Your task to perform on an android device: open app "Nova Launcher" (install if not already installed) Image 0: 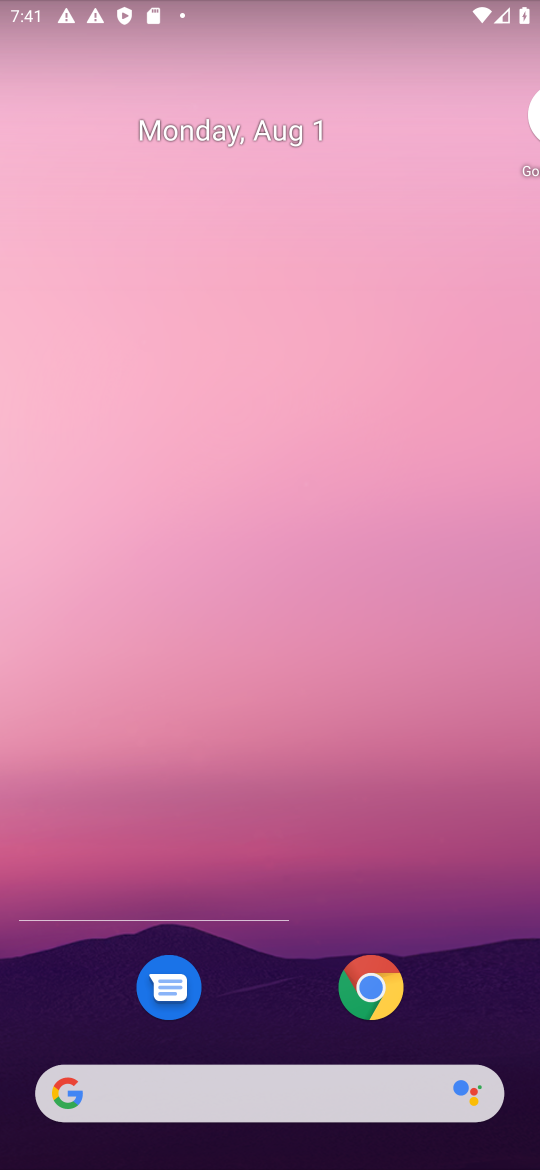
Step 0: press home button
Your task to perform on an android device: open app "Nova Launcher" (install if not already installed) Image 1: 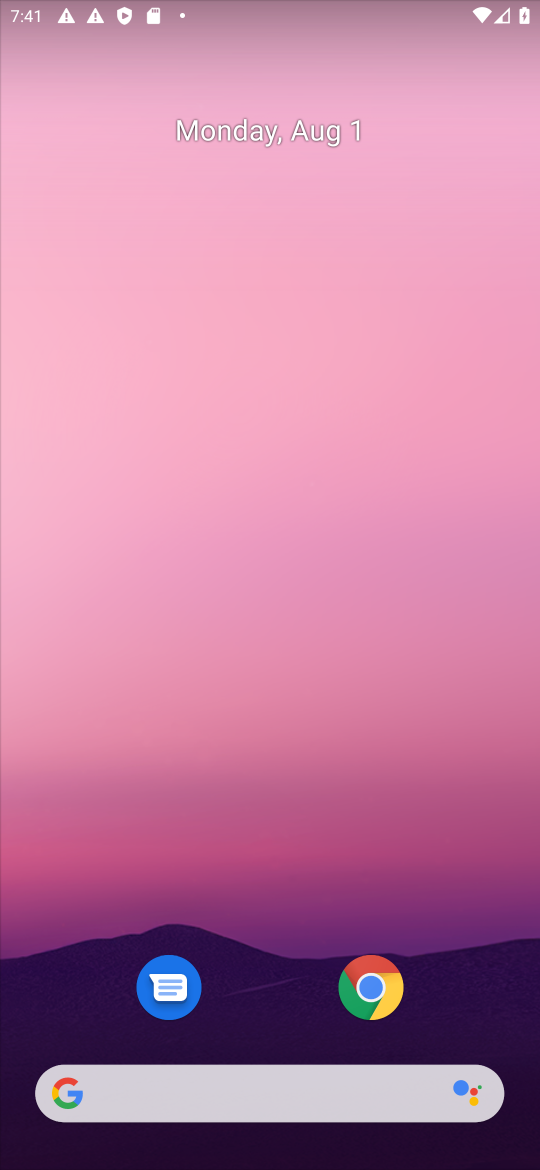
Step 1: drag from (273, 1005) to (225, 390)
Your task to perform on an android device: open app "Nova Launcher" (install if not already installed) Image 2: 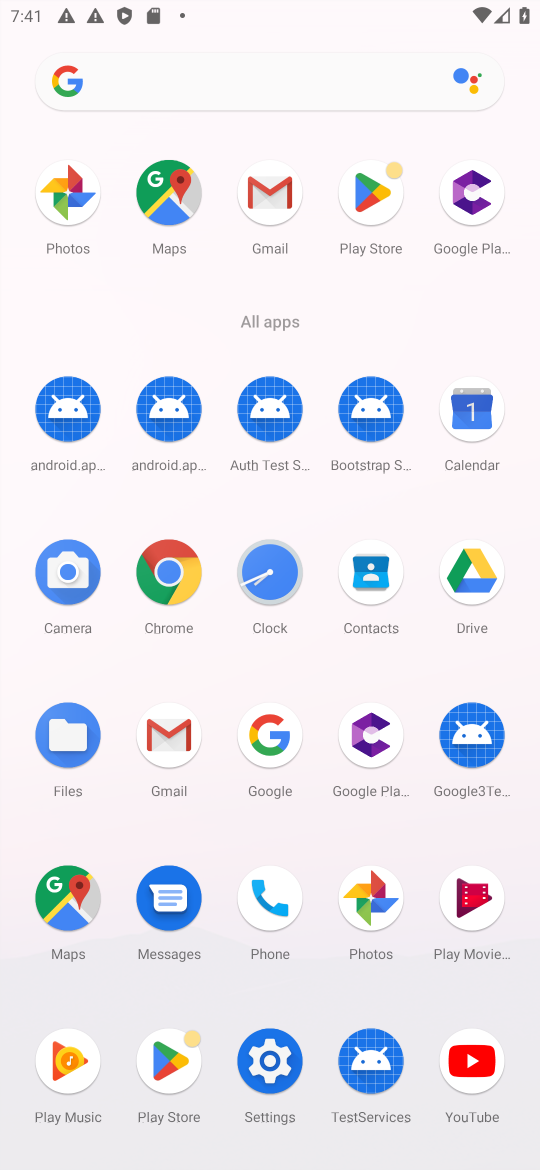
Step 2: click (363, 198)
Your task to perform on an android device: open app "Nova Launcher" (install if not already installed) Image 3: 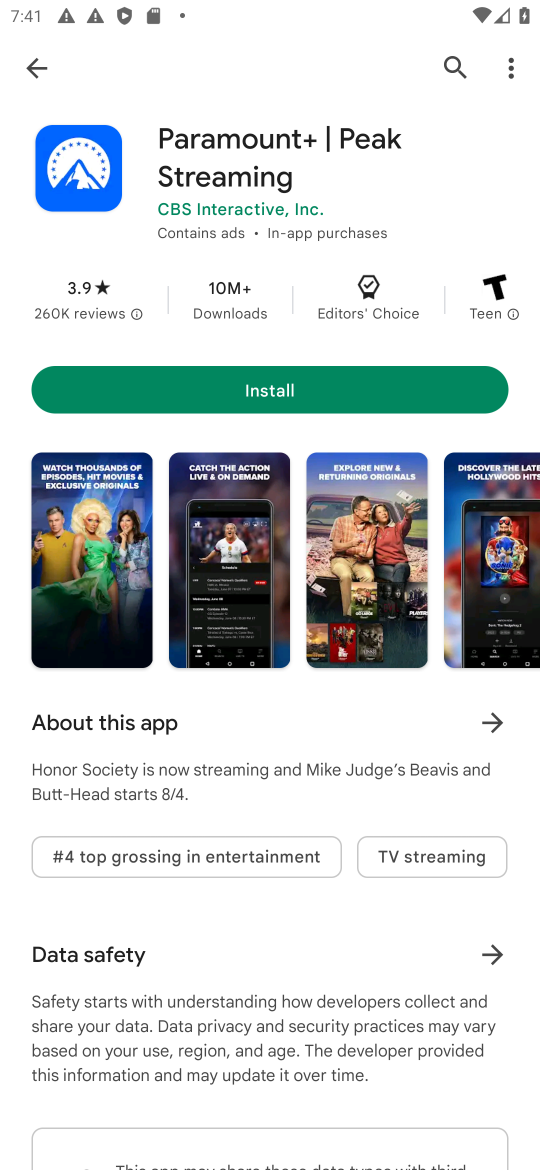
Step 3: click (444, 67)
Your task to perform on an android device: open app "Nova Launcher" (install if not already installed) Image 4: 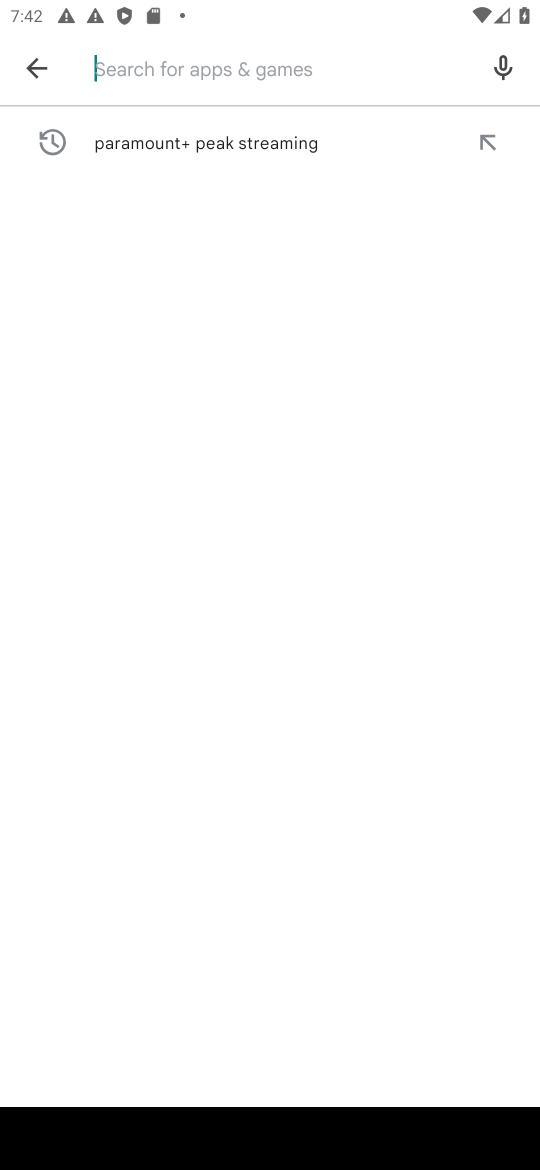
Step 4: type "Nova Launcher"
Your task to perform on an android device: open app "Nova Launcher" (install if not already installed) Image 5: 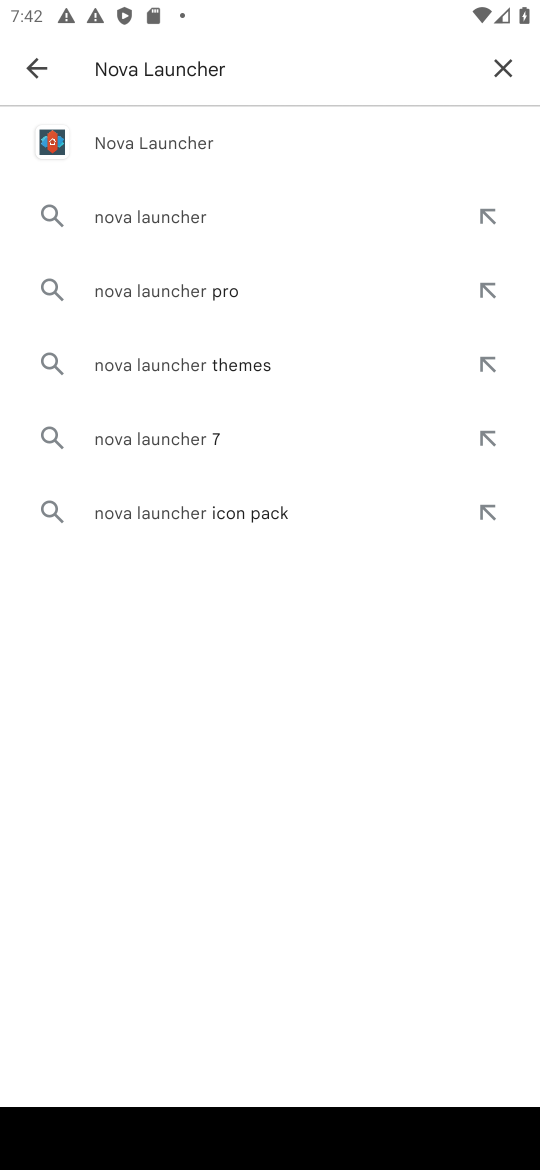
Step 5: click (182, 127)
Your task to perform on an android device: open app "Nova Launcher" (install if not already installed) Image 6: 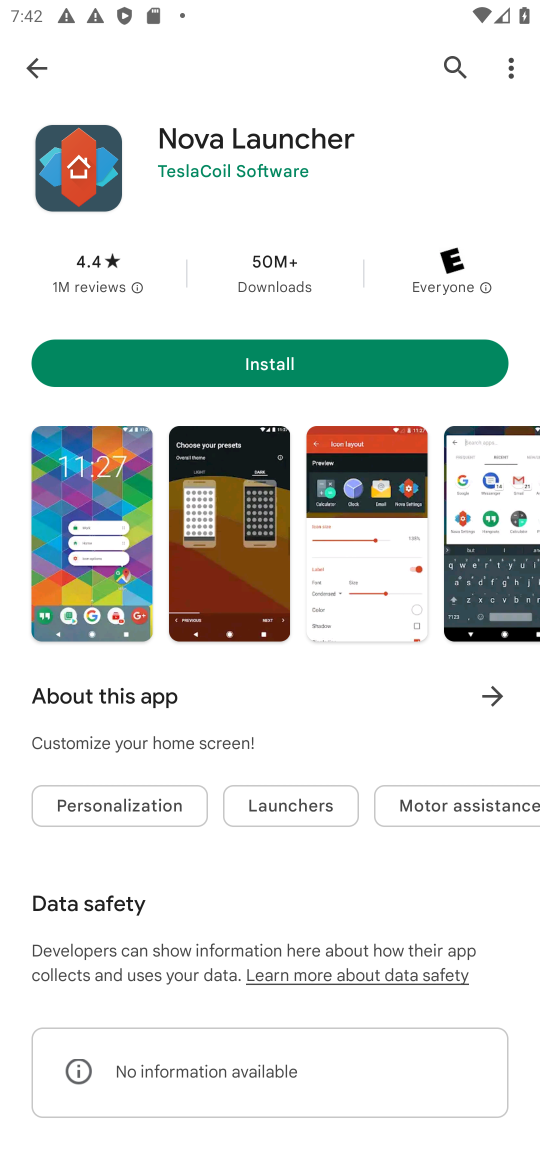
Step 6: click (272, 367)
Your task to perform on an android device: open app "Nova Launcher" (install if not already installed) Image 7: 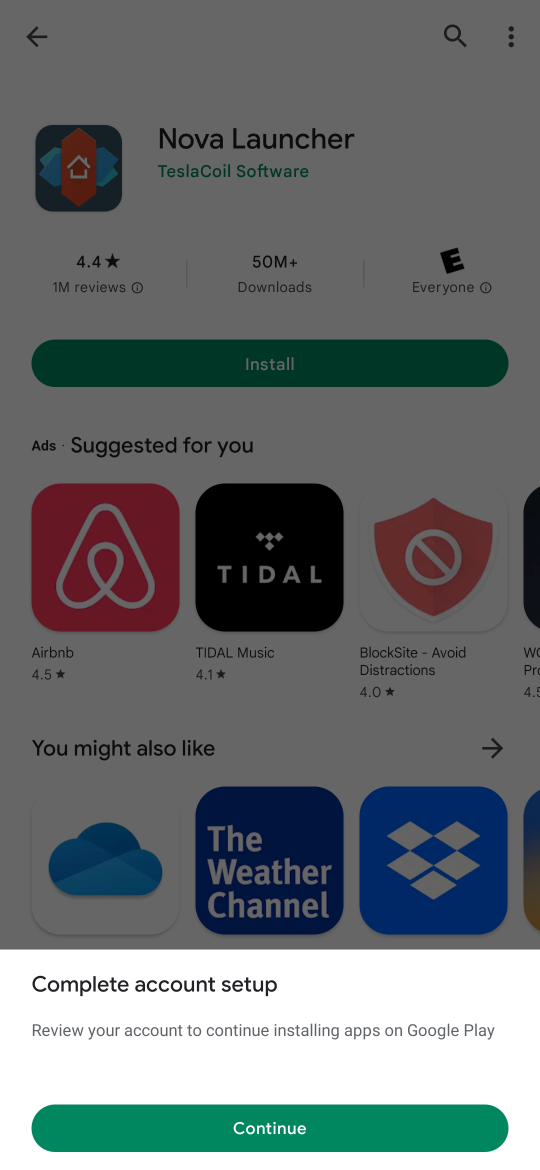
Step 7: click (245, 1136)
Your task to perform on an android device: open app "Nova Launcher" (install if not already installed) Image 8: 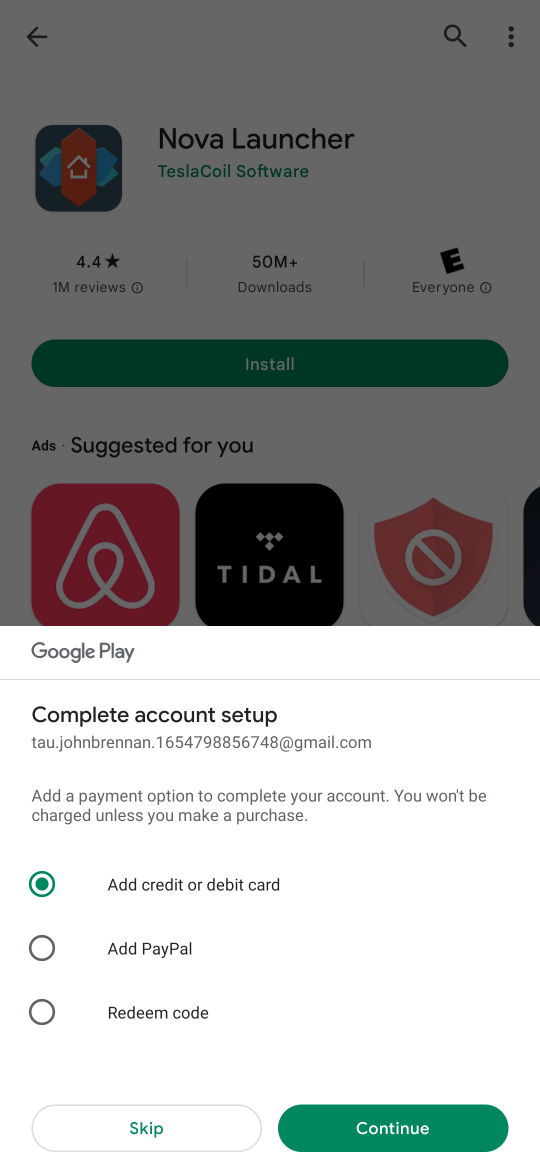
Step 8: click (120, 1125)
Your task to perform on an android device: open app "Nova Launcher" (install if not already installed) Image 9: 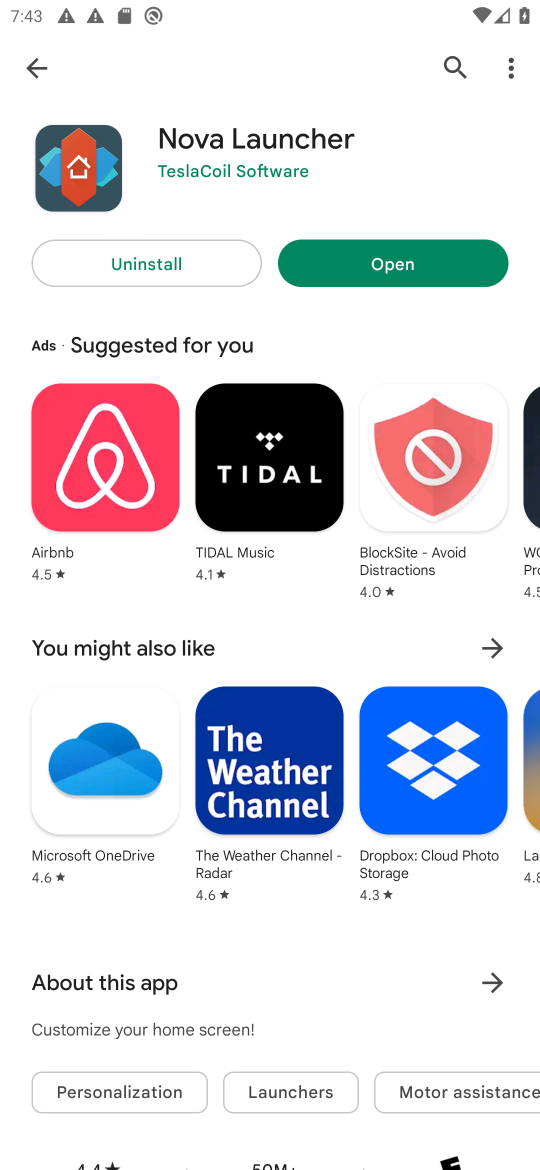
Step 9: click (414, 269)
Your task to perform on an android device: open app "Nova Launcher" (install if not already installed) Image 10: 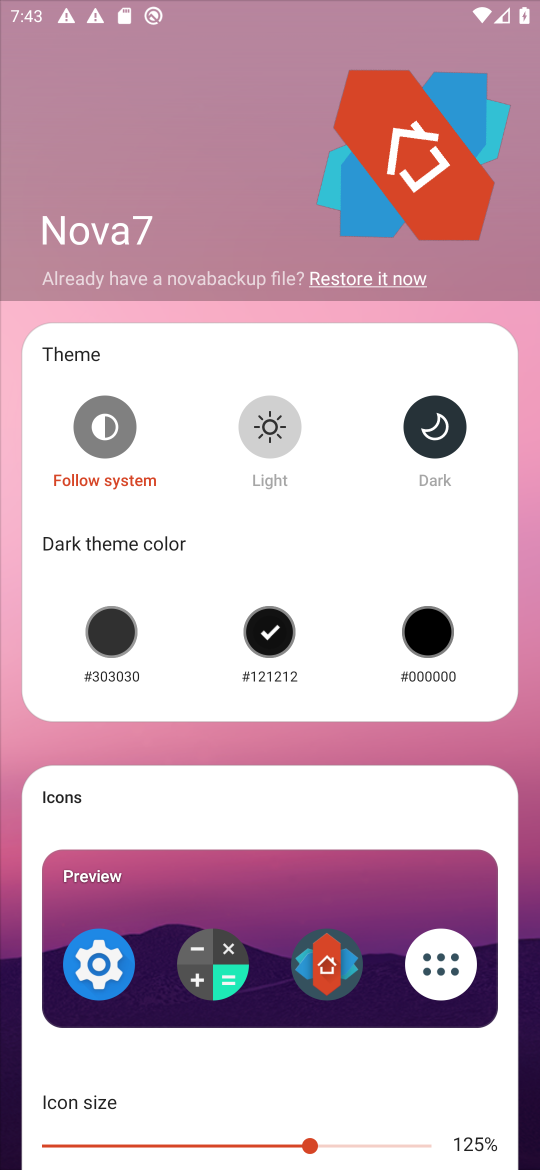
Step 10: task complete